Your task to perform on an android device: See recent photos Image 0: 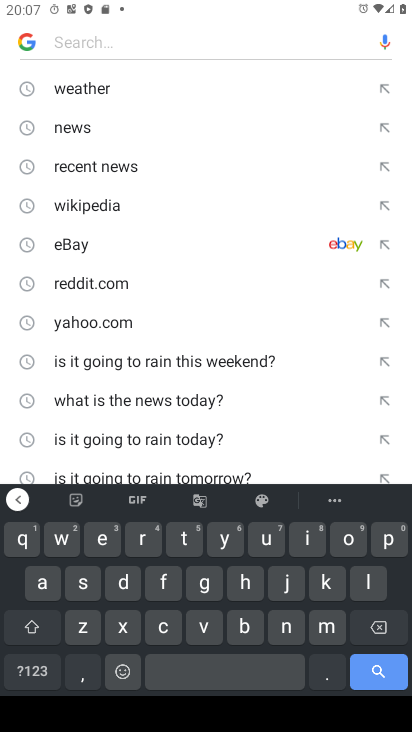
Step 0: press home button
Your task to perform on an android device: See recent photos Image 1: 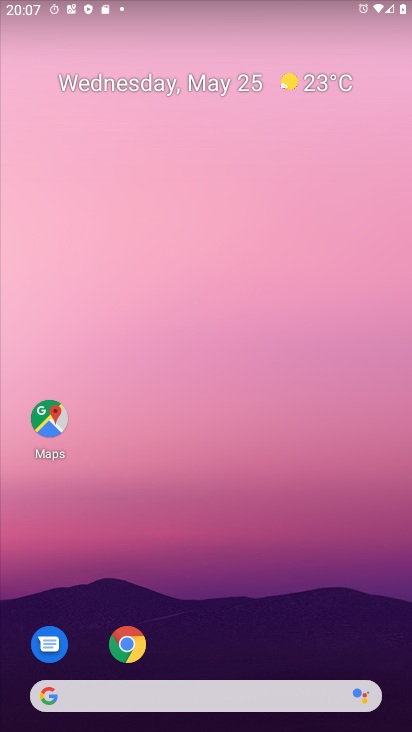
Step 1: drag from (253, 694) to (310, 132)
Your task to perform on an android device: See recent photos Image 2: 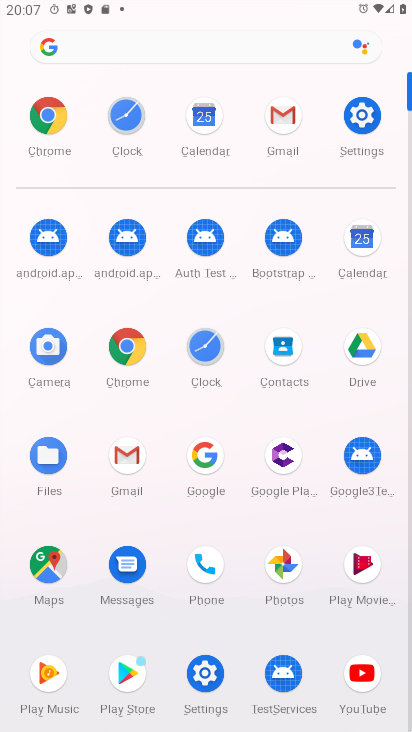
Step 2: click (282, 562)
Your task to perform on an android device: See recent photos Image 3: 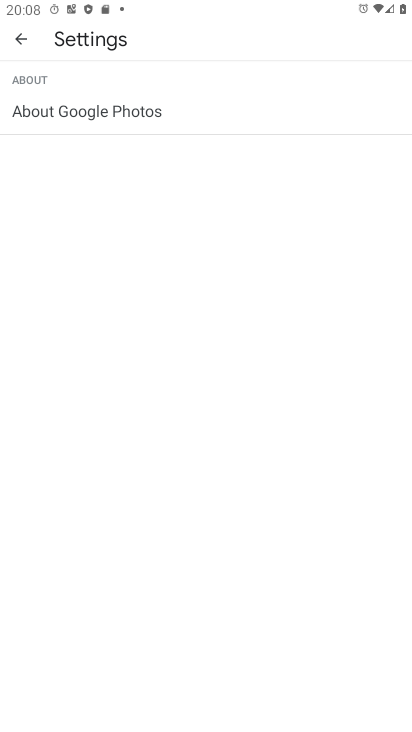
Step 3: click (14, 38)
Your task to perform on an android device: See recent photos Image 4: 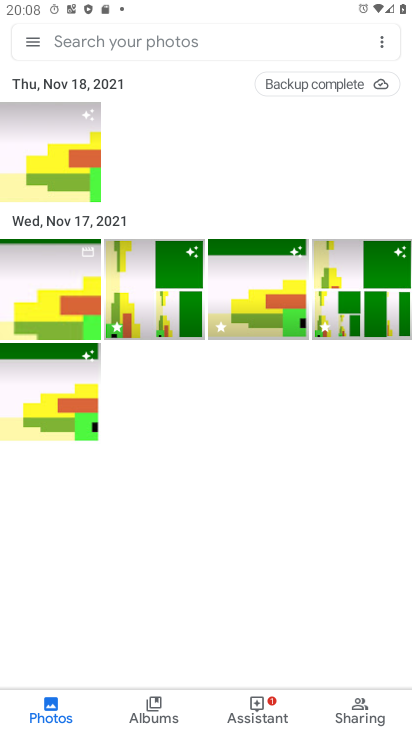
Step 4: task complete